Your task to perform on an android device: find snoozed emails in the gmail app Image 0: 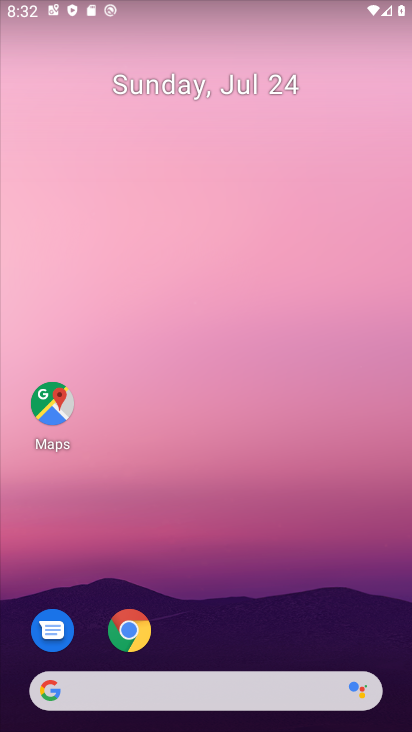
Step 0: drag from (201, 625) to (191, 44)
Your task to perform on an android device: find snoozed emails in the gmail app Image 1: 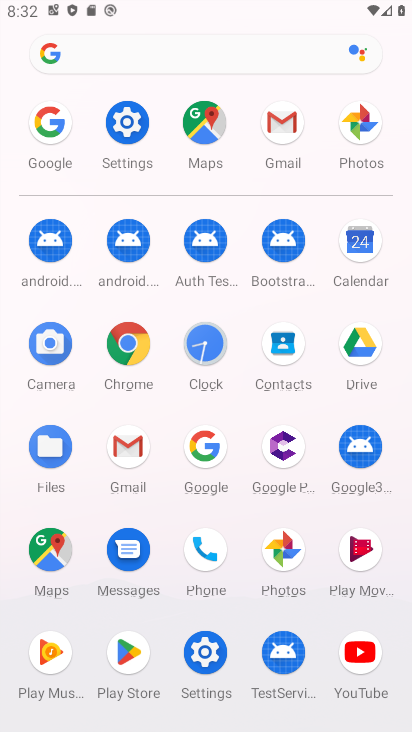
Step 1: click (283, 139)
Your task to perform on an android device: find snoozed emails in the gmail app Image 2: 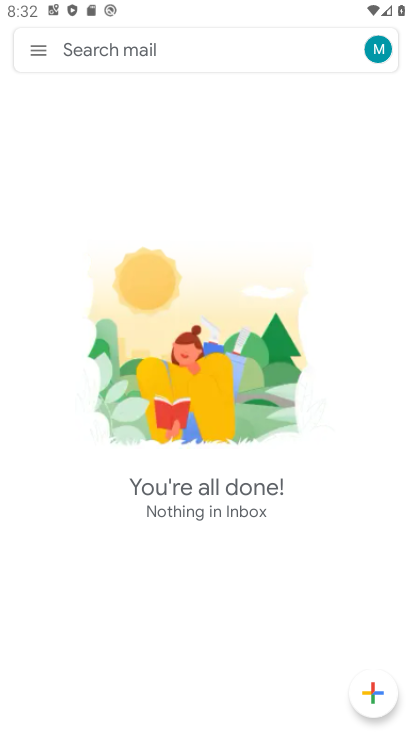
Step 2: click (46, 48)
Your task to perform on an android device: find snoozed emails in the gmail app Image 3: 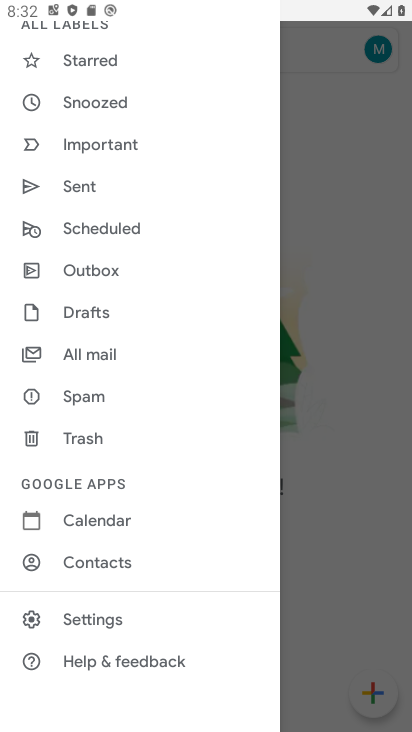
Step 3: click (101, 113)
Your task to perform on an android device: find snoozed emails in the gmail app Image 4: 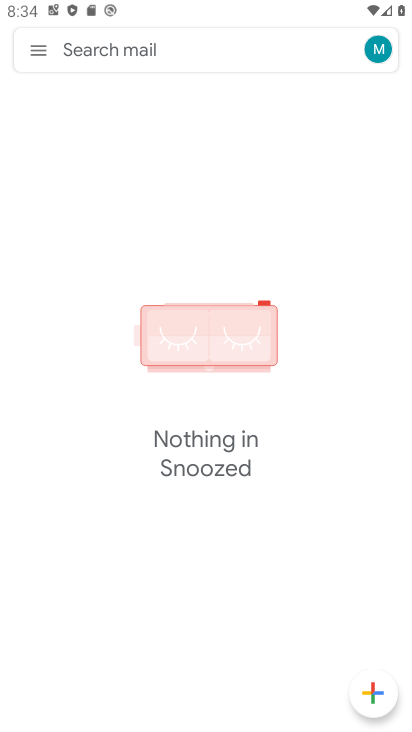
Step 4: task complete